Your task to perform on an android device: turn off wifi Image 0: 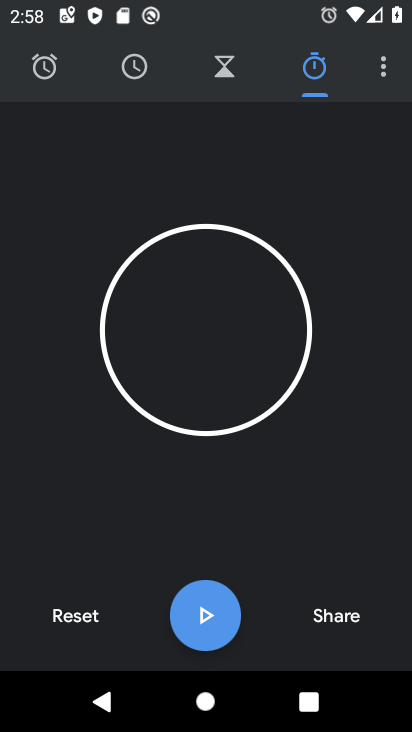
Step 0: press home button
Your task to perform on an android device: turn off wifi Image 1: 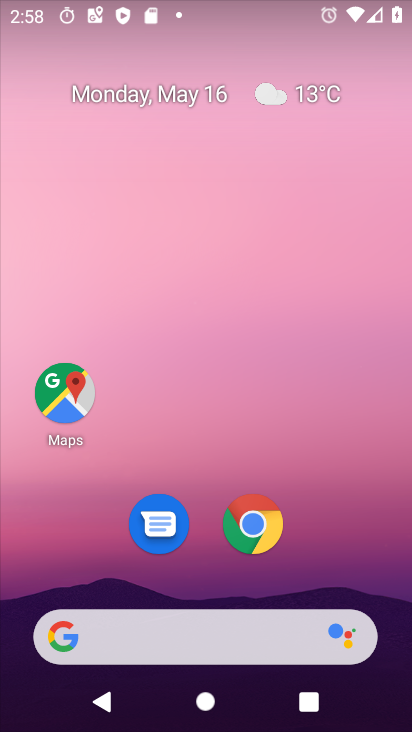
Step 1: drag from (332, 523) to (330, 69)
Your task to perform on an android device: turn off wifi Image 2: 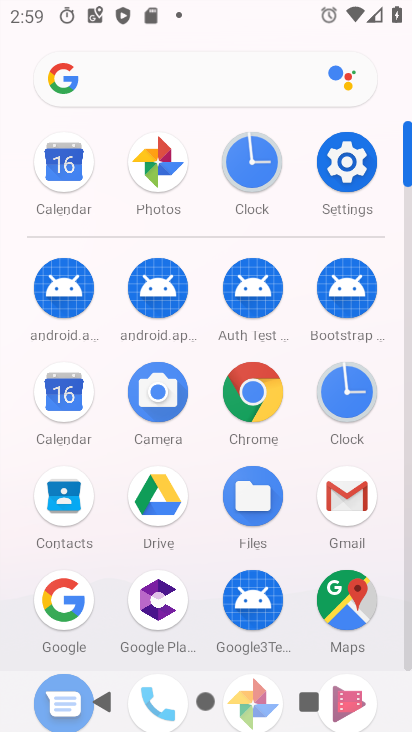
Step 2: click (336, 165)
Your task to perform on an android device: turn off wifi Image 3: 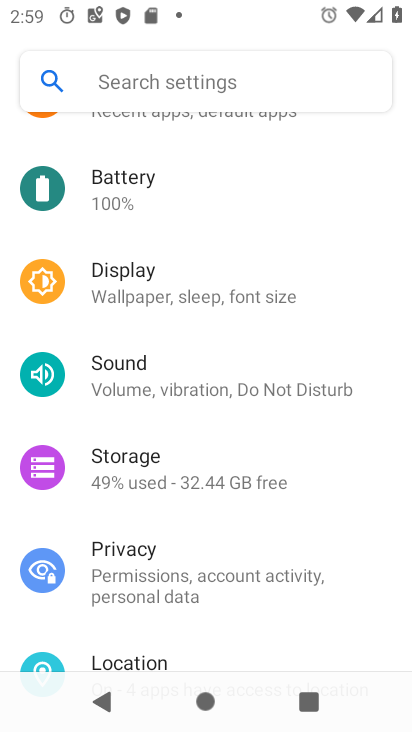
Step 3: drag from (237, 242) to (177, 557)
Your task to perform on an android device: turn off wifi Image 4: 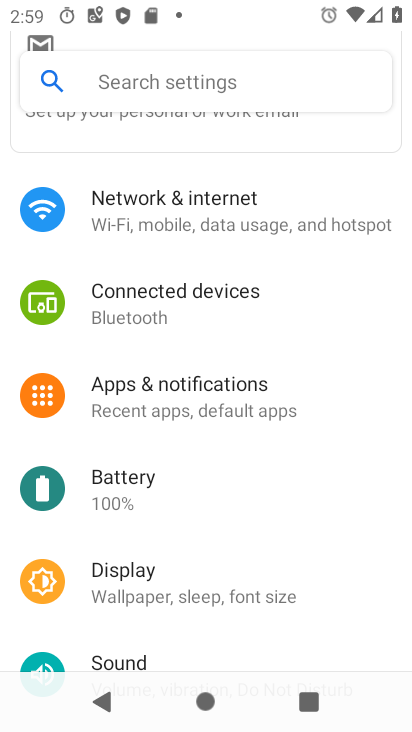
Step 4: drag from (215, 279) to (224, 468)
Your task to perform on an android device: turn off wifi Image 5: 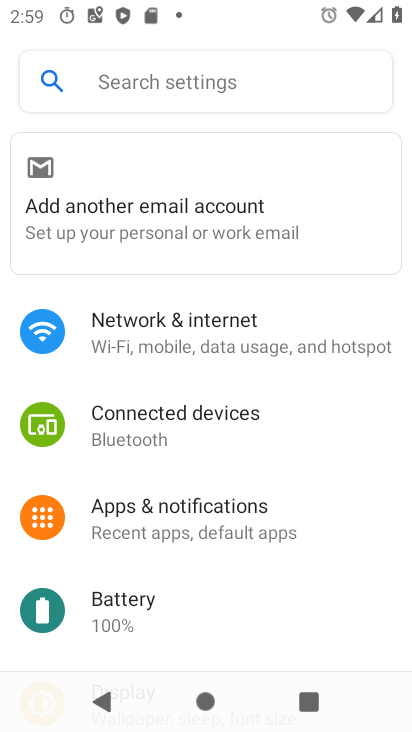
Step 5: click (225, 330)
Your task to perform on an android device: turn off wifi Image 6: 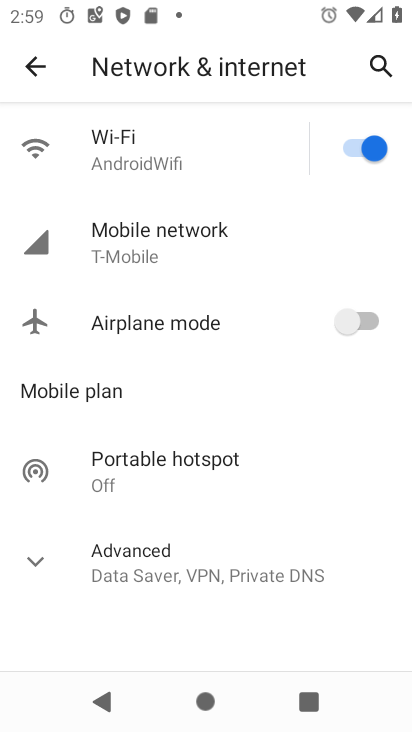
Step 6: click (351, 141)
Your task to perform on an android device: turn off wifi Image 7: 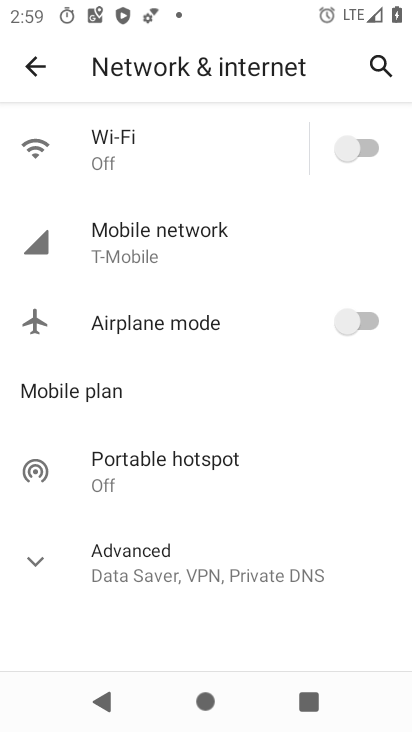
Step 7: task complete